Your task to perform on an android device: Toggle the flashlight Image 0: 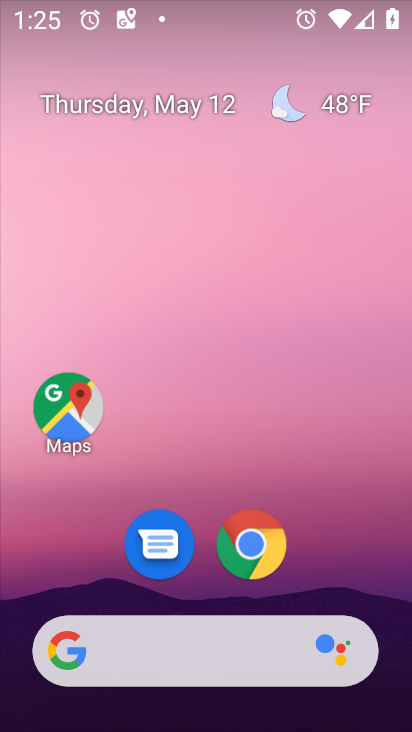
Step 0: drag from (336, 507) to (240, 0)
Your task to perform on an android device: Toggle the flashlight Image 1: 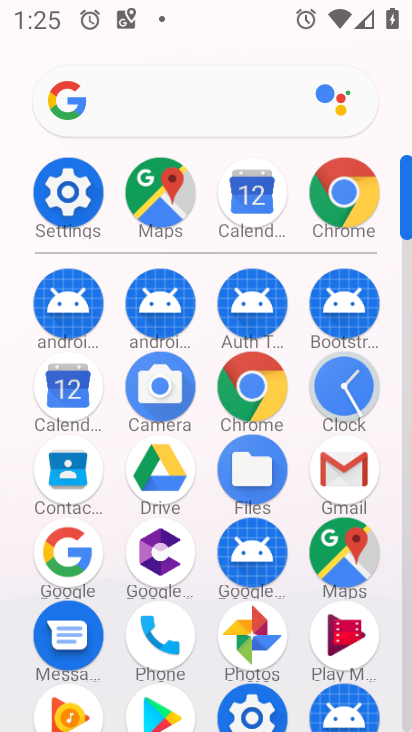
Step 1: drag from (12, 556) to (30, 240)
Your task to perform on an android device: Toggle the flashlight Image 2: 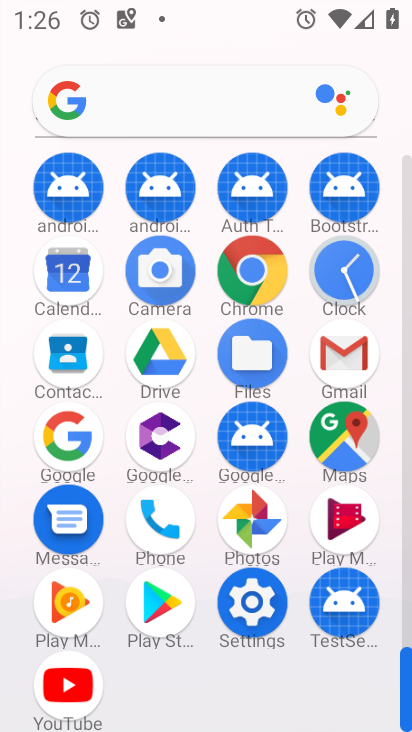
Step 2: drag from (16, 439) to (37, 190)
Your task to perform on an android device: Toggle the flashlight Image 3: 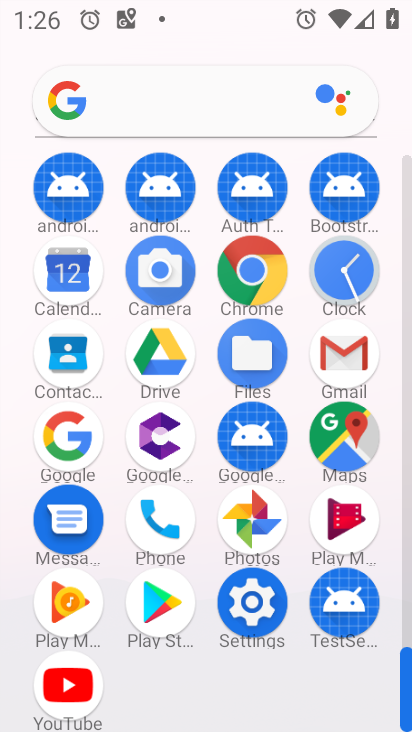
Step 3: click (254, 599)
Your task to perform on an android device: Toggle the flashlight Image 4: 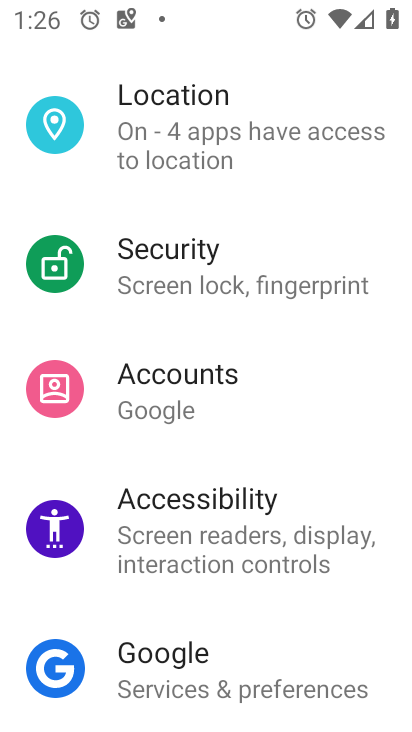
Step 4: drag from (286, 106) to (293, 526)
Your task to perform on an android device: Toggle the flashlight Image 5: 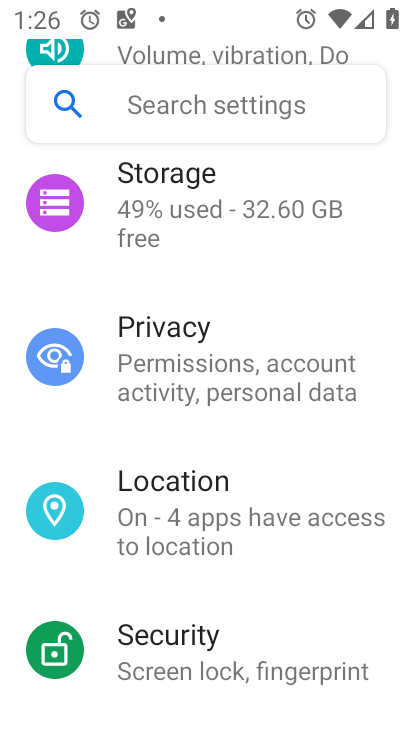
Step 5: drag from (270, 207) to (290, 606)
Your task to perform on an android device: Toggle the flashlight Image 6: 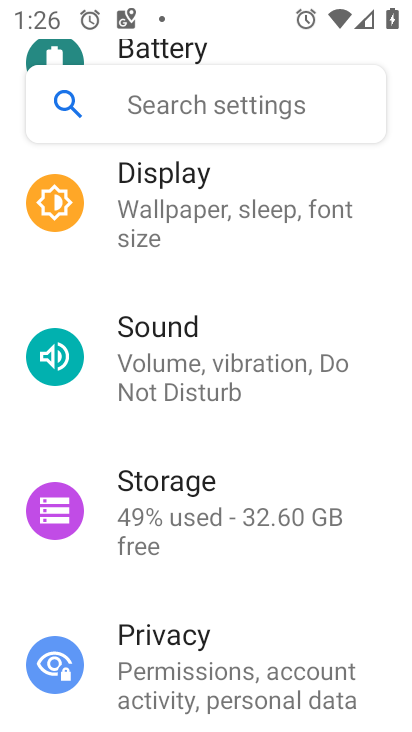
Step 6: drag from (286, 205) to (318, 657)
Your task to perform on an android device: Toggle the flashlight Image 7: 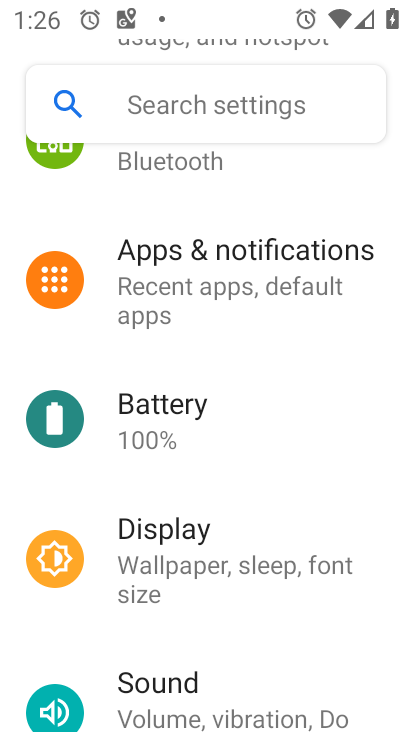
Step 7: drag from (273, 309) to (252, 619)
Your task to perform on an android device: Toggle the flashlight Image 8: 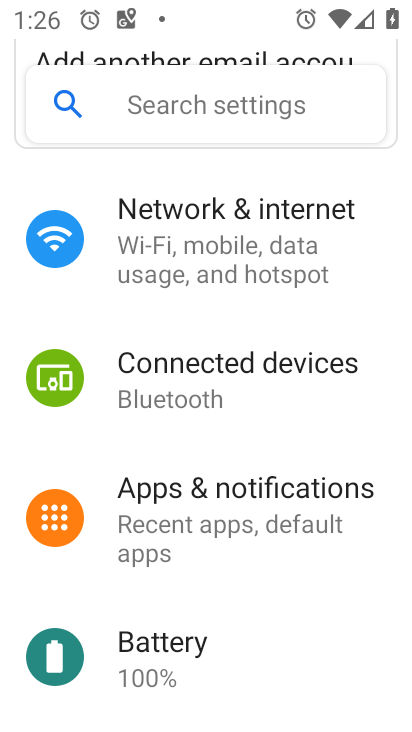
Step 8: click (253, 257)
Your task to perform on an android device: Toggle the flashlight Image 9: 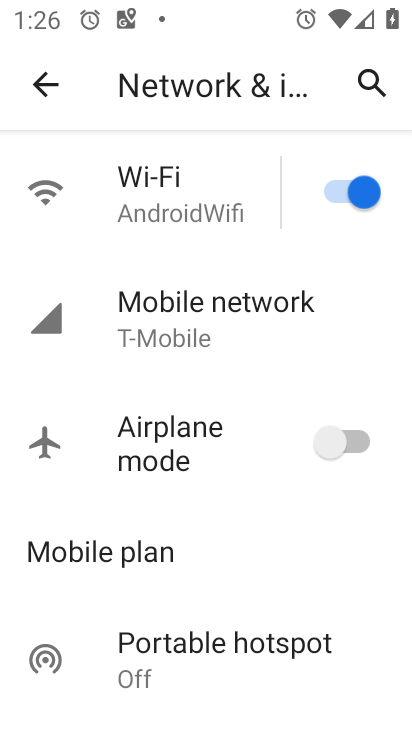
Step 9: task complete